Your task to perform on an android device: Is it going to rain this weekend? Image 0: 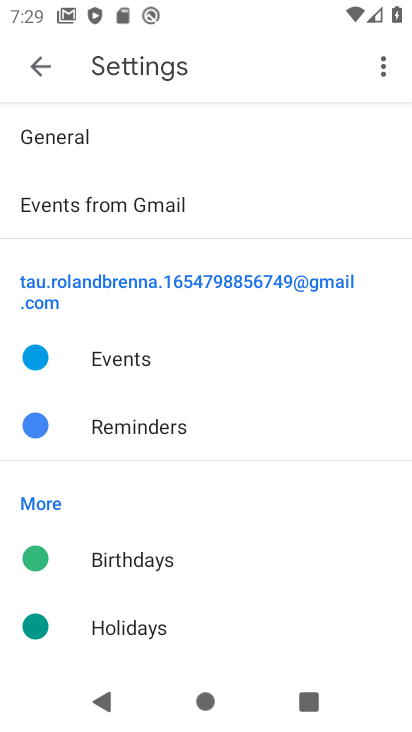
Step 0: press home button
Your task to perform on an android device: Is it going to rain this weekend? Image 1: 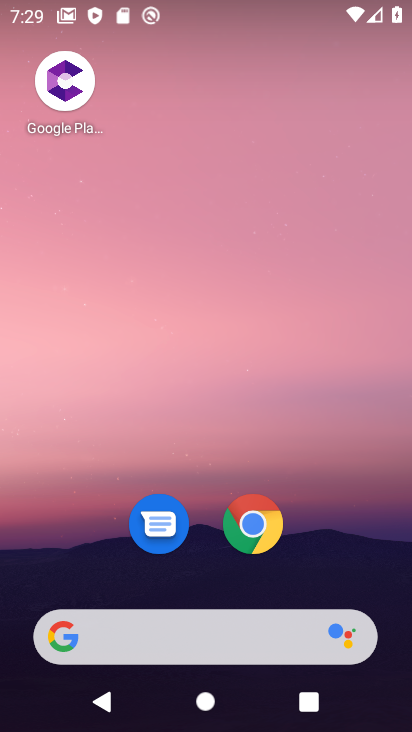
Step 1: drag from (168, 629) to (263, 246)
Your task to perform on an android device: Is it going to rain this weekend? Image 2: 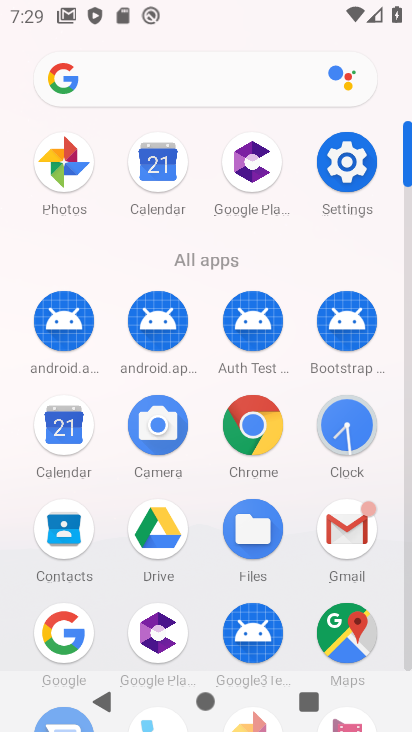
Step 2: click (61, 625)
Your task to perform on an android device: Is it going to rain this weekend? Image 3: 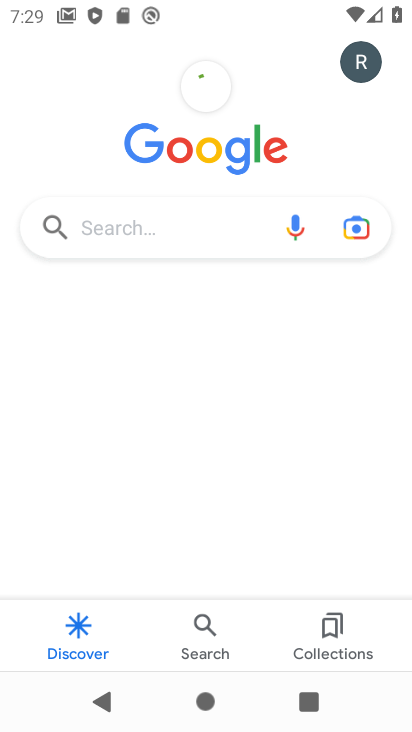
Step 3: click (200, 627)
Your task to perform on an android device: Is it going to rain this weekend? Image 4: 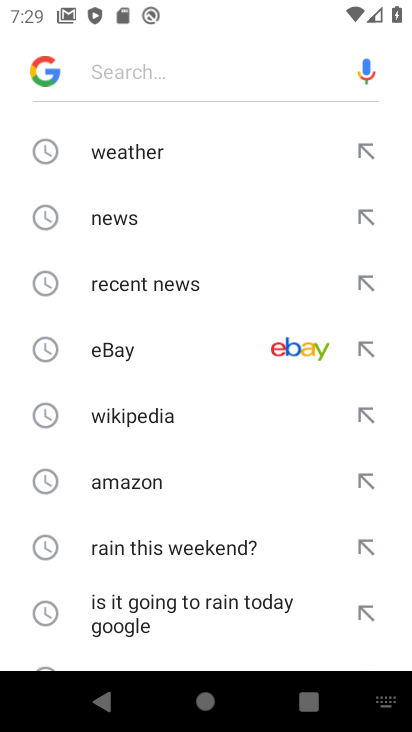
Step 4: click (146, 553)
Your task to perform on an android device: Is it going to rain this weekend? Image 5: 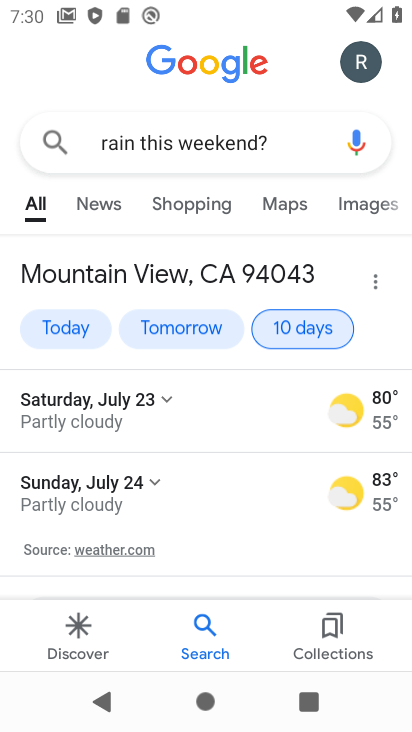
Step 5: task complete